Your task to perform on an android device: snooze an email in the gmail app Image 0: 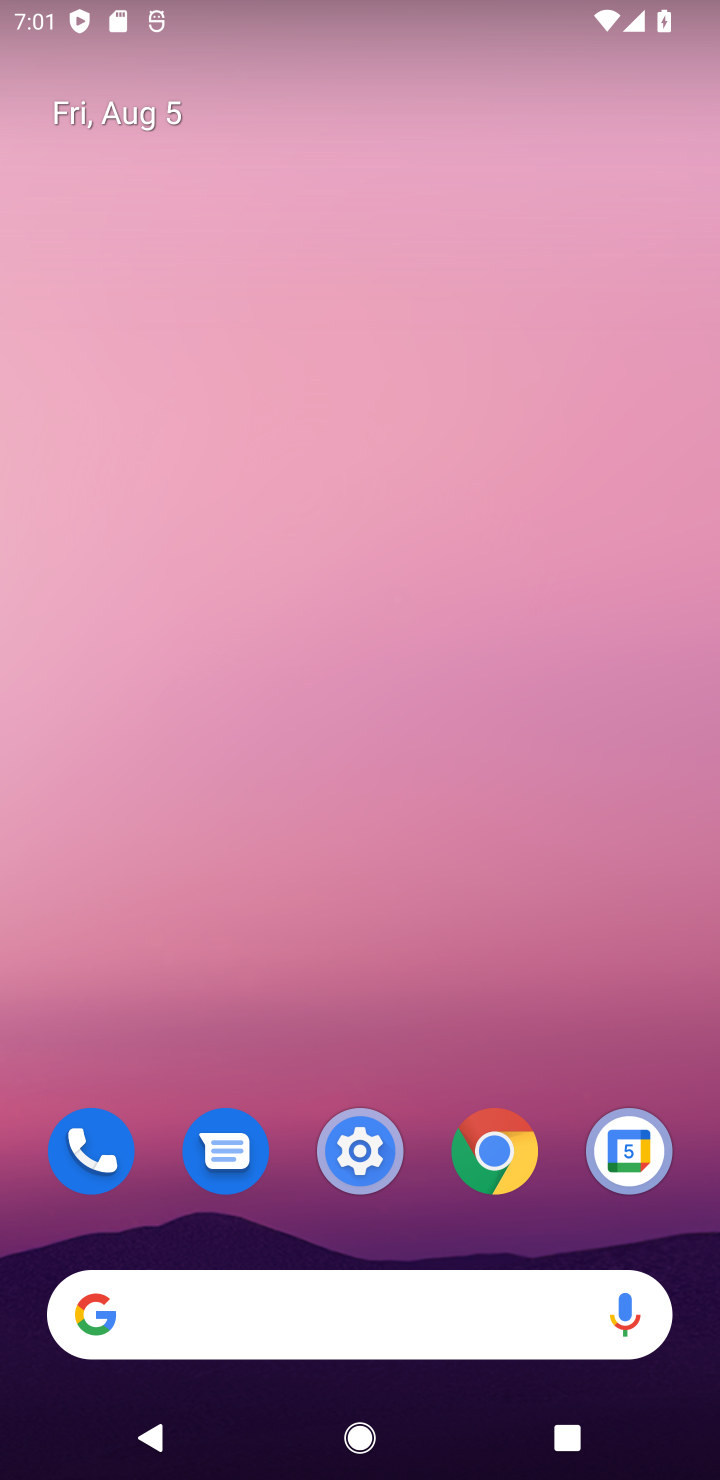
Step 0: drag from (482, 1039) to (387, 0)
Your task to perform on an android device: snooze an email in the gmail app Image 1: 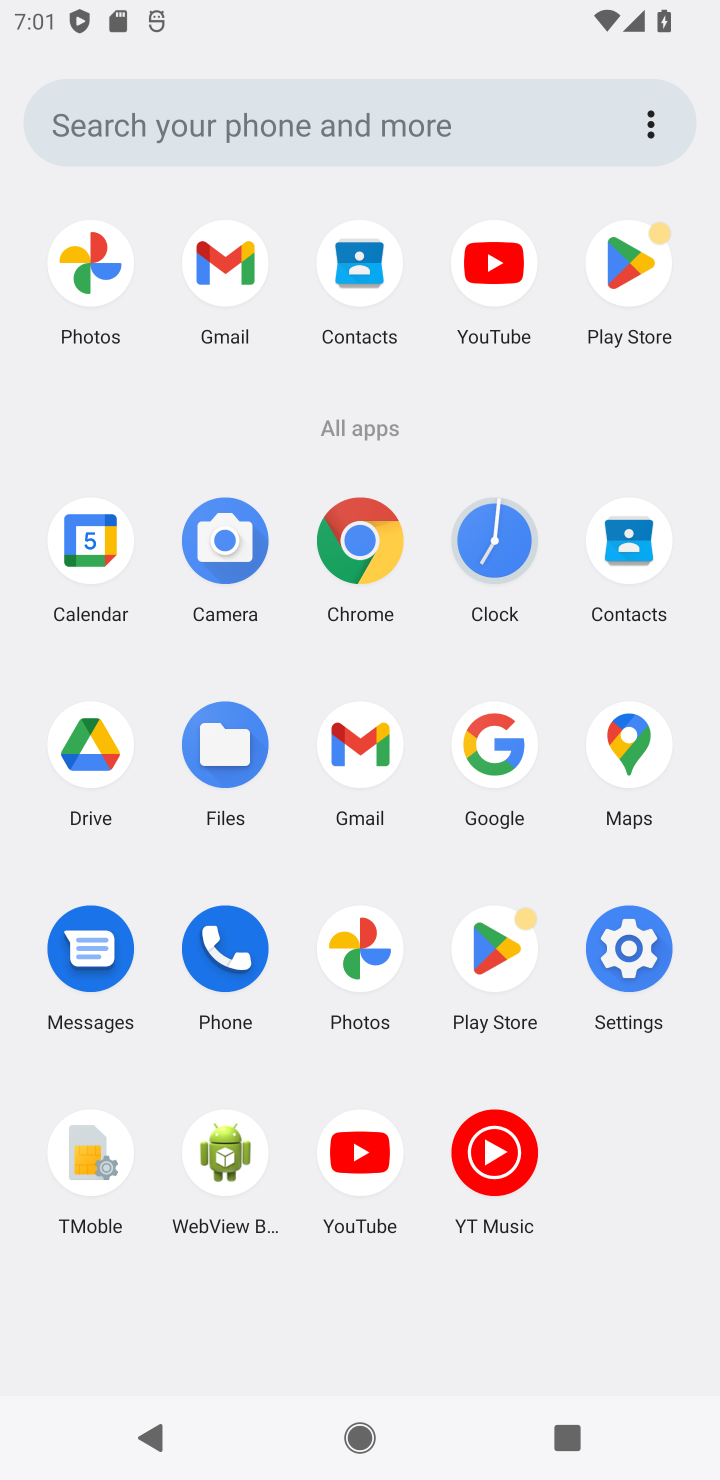
Step 1: click (368, 754)
Your task to perform on an android device: snooze an email in the gmail app Image 2: 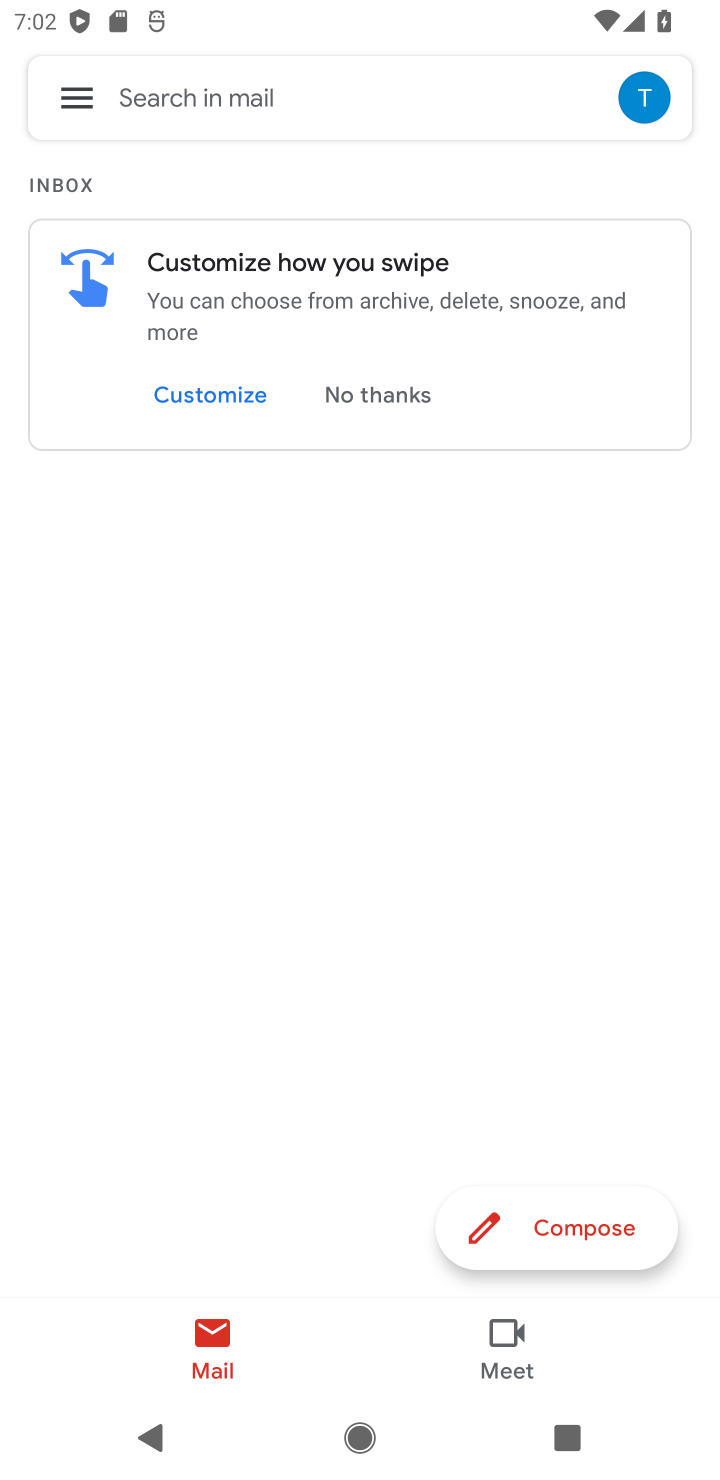
Step 2: click (84, 108)
Your task to perform on an android device: snooze an email in the gmail app Image 3: 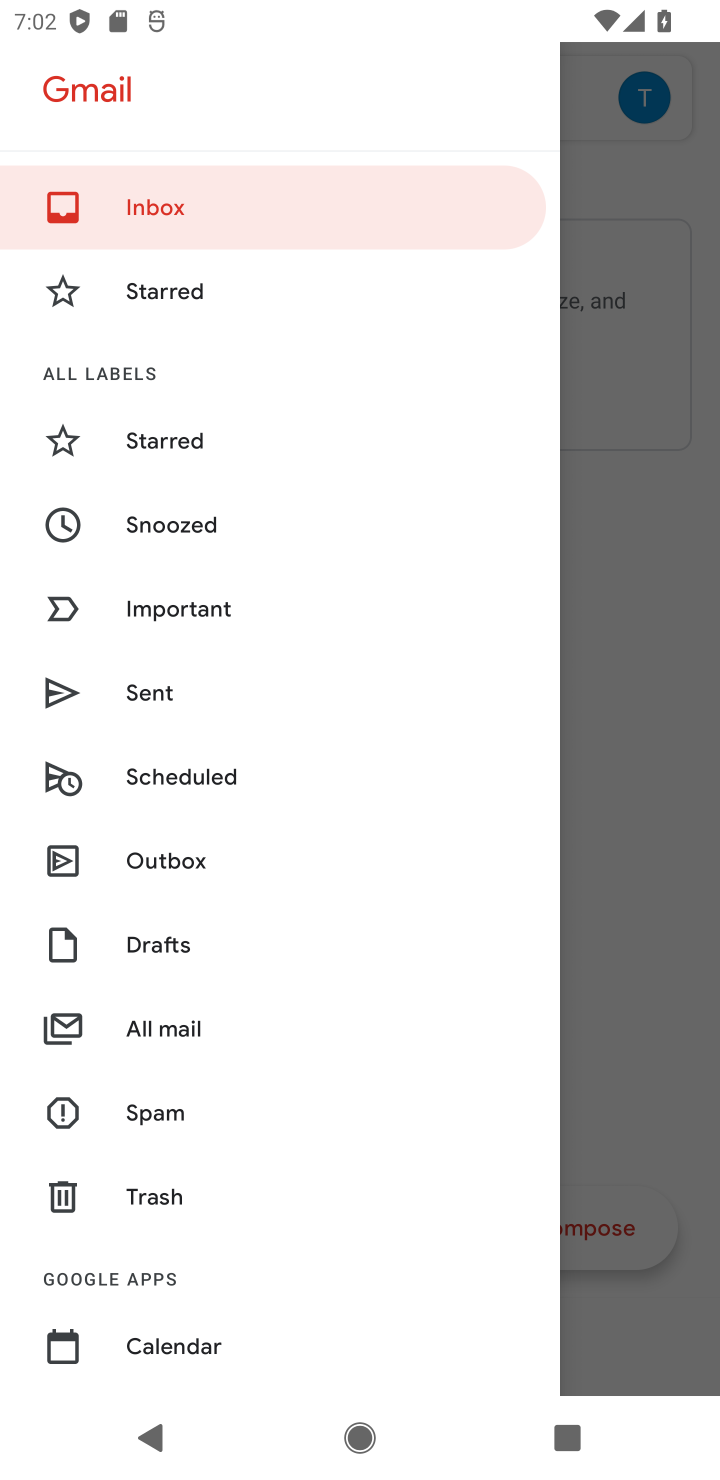
Step 3: drag from (374, 1177) to (314, 699)
Your task to perform on an android device: snooze an email in the gmail app Image 4: 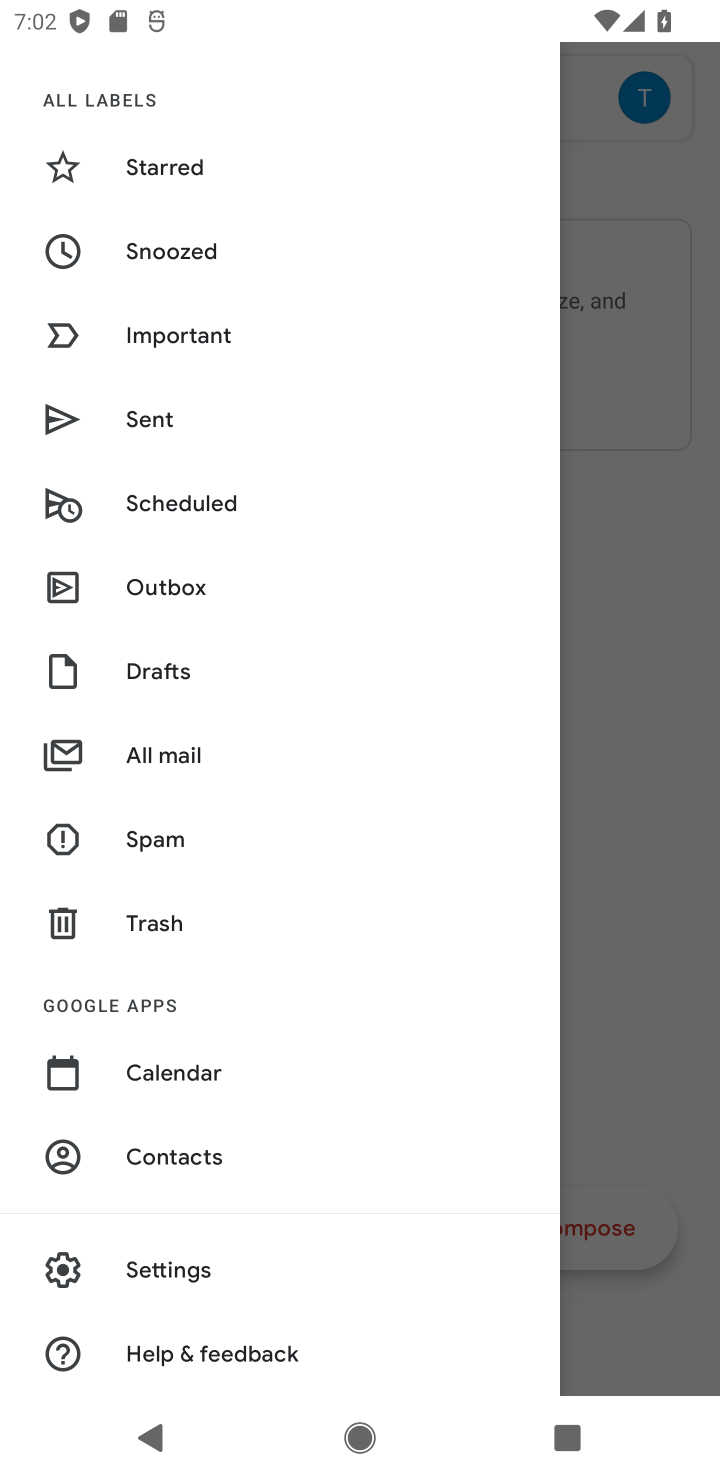
Step 4: click (173, 745)
Your task to perform on an android device: snooze an email in the gmail app Image 5: 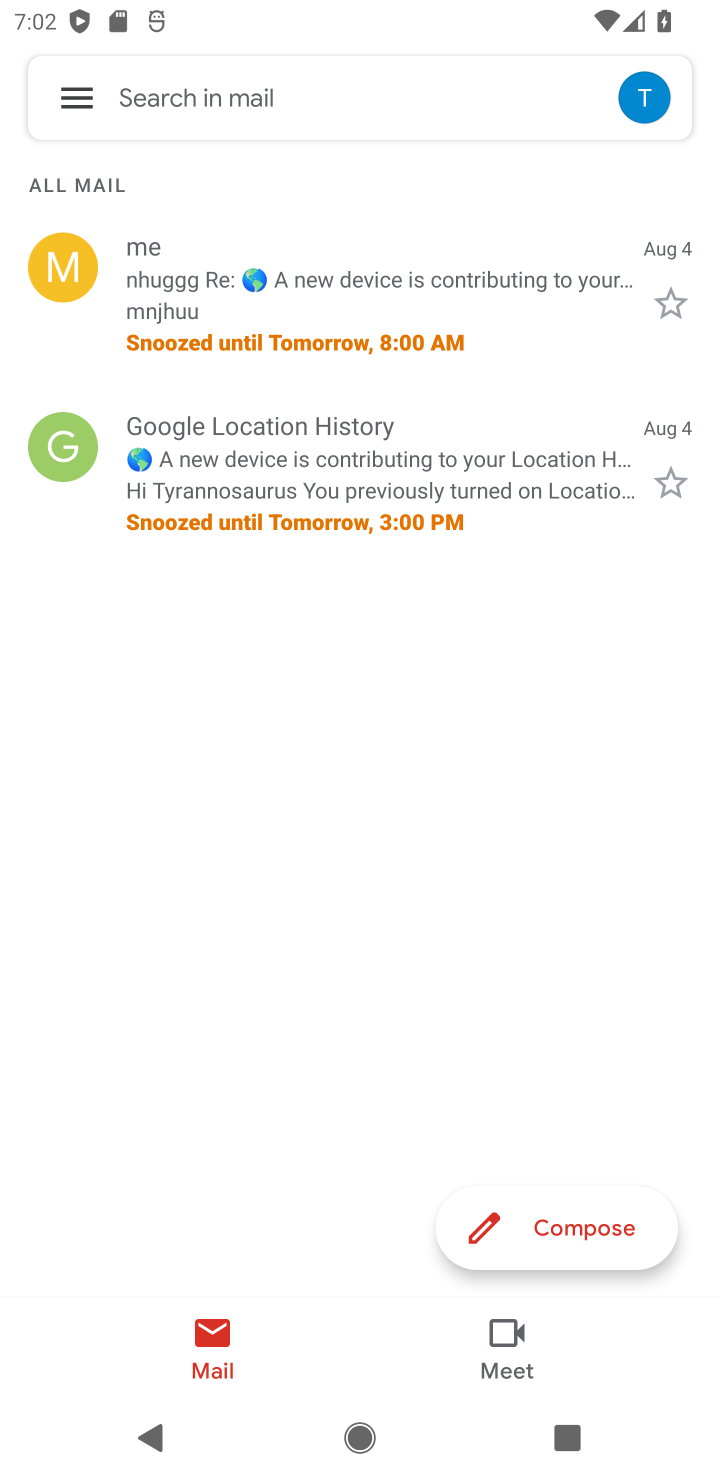
Step 5: task complete